Your task to perform on an android device: allow cookies in the chrome app Image 0: 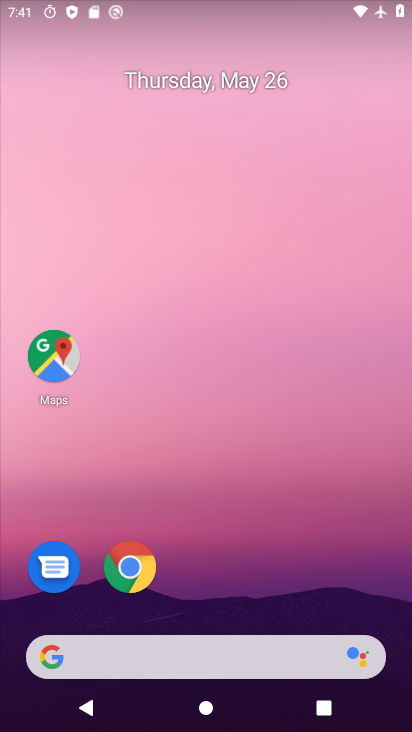
Step 0: press home button
Your task to perform on an android device: allow cookies in the chrome app Image 1: 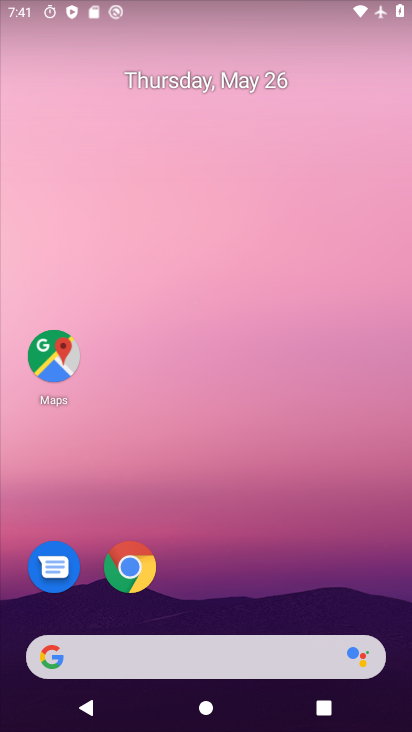
Step 1: click (135, 573)
Your task to perform on an android device: allow cookies in the chrome app Image 2: 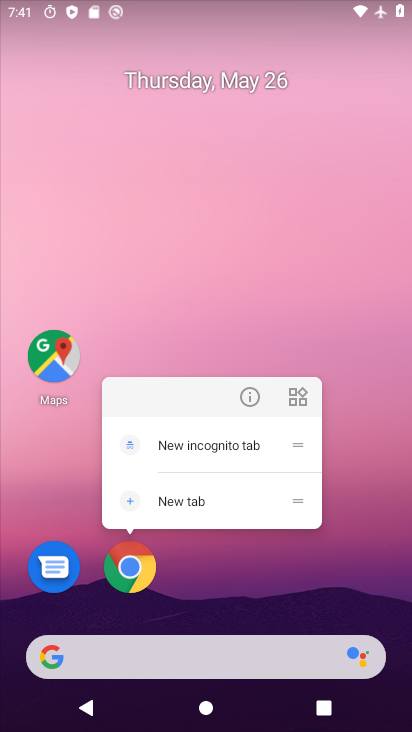
Step 2: click (132, 574)
Your task to perform on an android device: allow cookies in the chrome app Image 3: 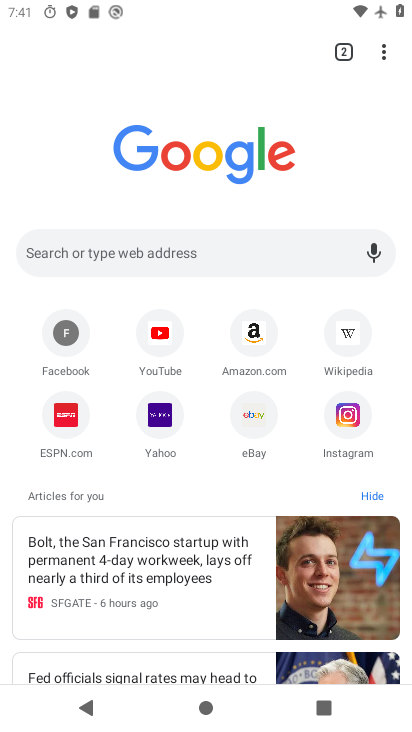
Step 3: drag from (383, 57) to (247, 424)
Your task to perform on an android device: allow cookies in the chrome app Image 4: 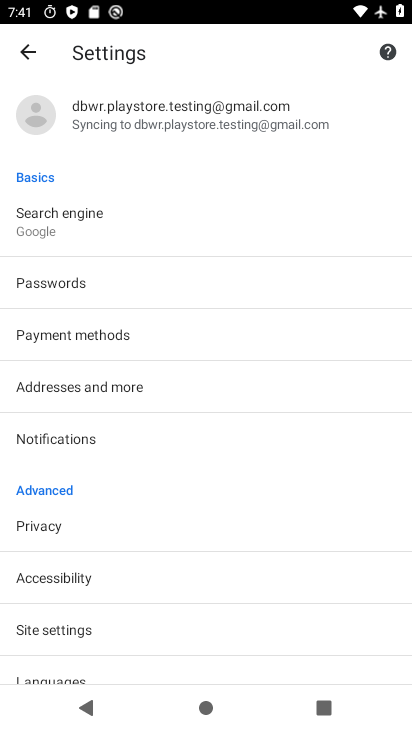
Step 4: click (84, 634)
Your task to perform on an android device: allow cookies in the chrome app Image 5: 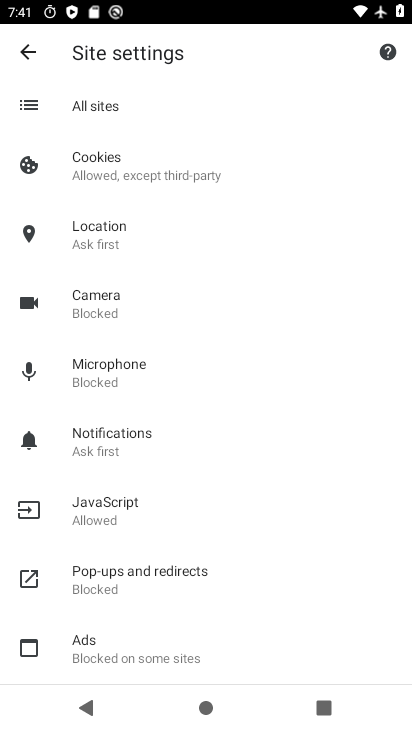
Step 5: click (106, 176)
Your task to perform on an android device: allow cookies in the chrome app Image 6: 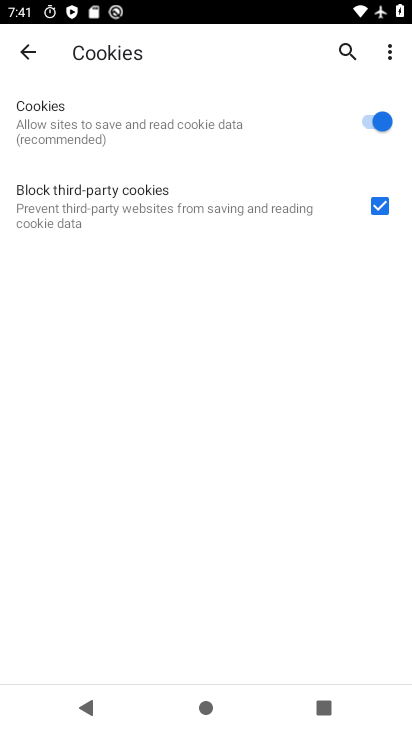
Step 6: task complete